Your task to perform on an android device: change notification settings in the gmail app Image 0: 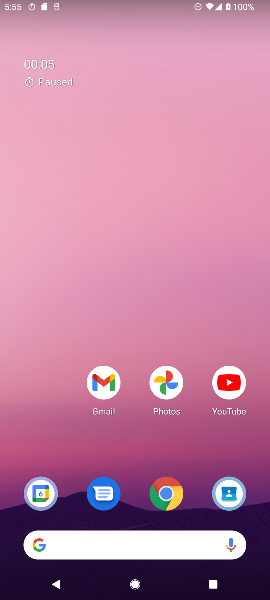
Step 0: drag from (143, 321) to (119, 198)
Your task to perform on an android device: change notification settings in the gmail app Image 1: 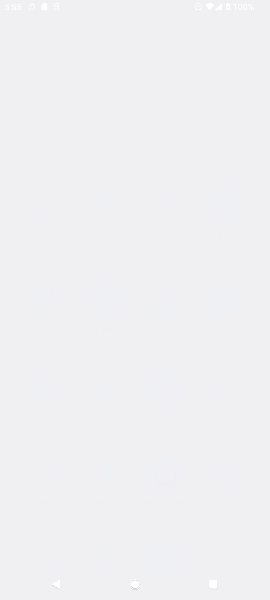
Step 1: drag from (170, 471) to (140, 217)
Your task to perform on an android device: change notification settings in the gmail app Image 2: 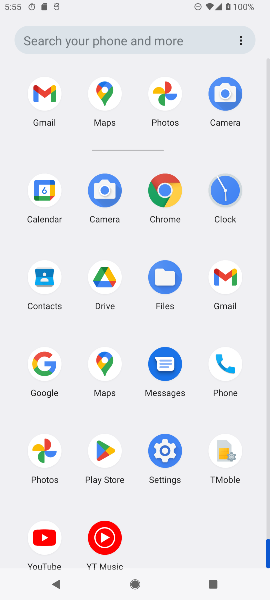
Step 2: drag from (195, 443) to (195, 261)
Your task to perform on an android device: change notification settings in the gmail app Image 3: 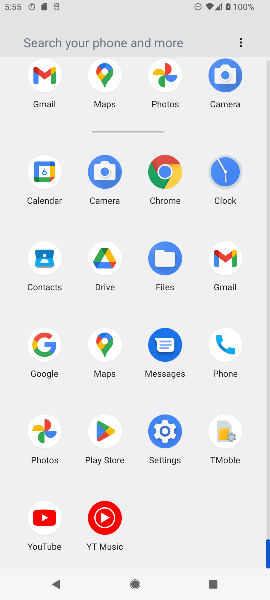
Step 3: click (224, 255)
Your task to perform on an android device: change notification settings in the gmail app Image 4: 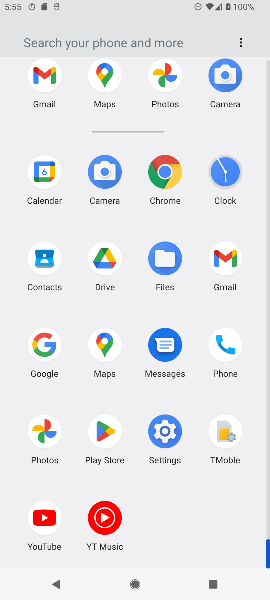
Step 4: click (225, 255)
Your task to perform on an android device: change notification settings in the gmail app Image 5: 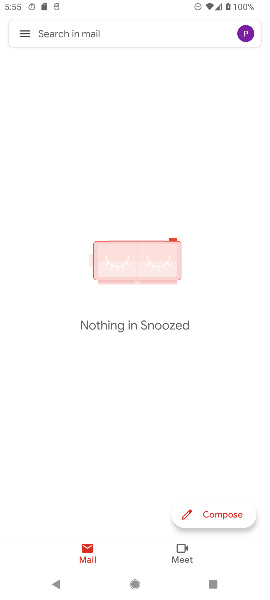
Step 5: press back button
Your task to perform on an android device: change notification settings in the gmail app Image 6: 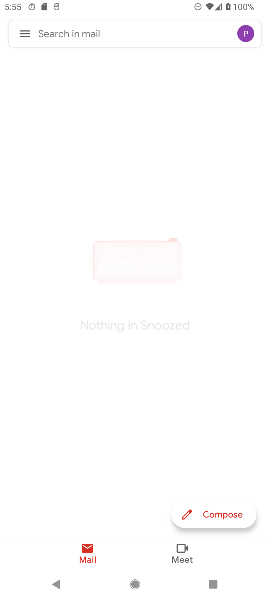
Step 6: press back button
Your task to perform on an android device: change notification settings in the gmail app Image 7: 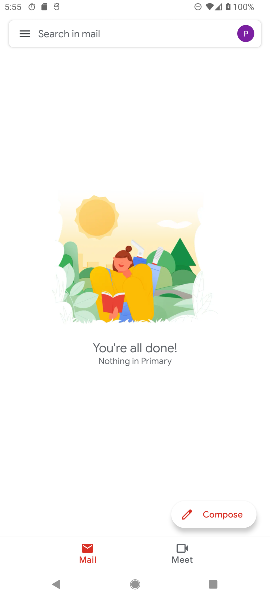
Step 7: press back button
Your task to perform on an android device: change notification settings in the gmail app Image 8: 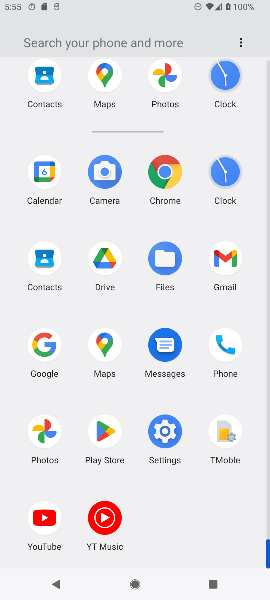
Step 8: press back button
Your task to perform on an android device: change notification settings in the gmail app Image 9: 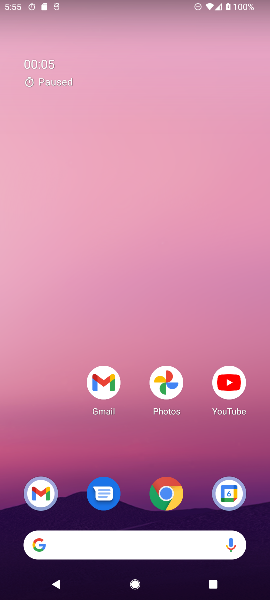
Step 9: drag from (141, 504) to (72, 45)
Your task to perform on an android device: change notification settings in the gmail app Image 10: 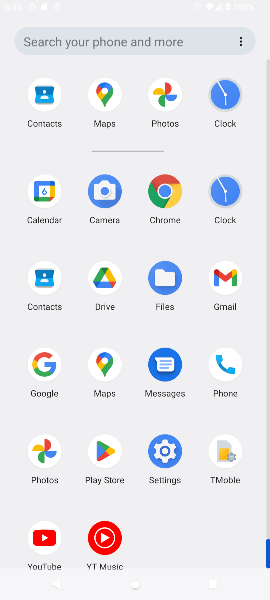
Step 10: drag from (166, 366) to (192, 6)
Your task to perform on an android device: change notification settings in the gmail app Image 11: 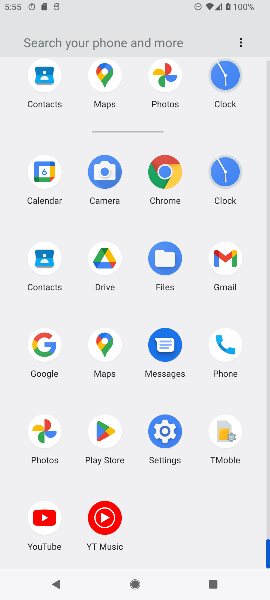
Step 11: click (226, 249)
Your task to perform on an android device: change notification settings in the gmail app Image 12: 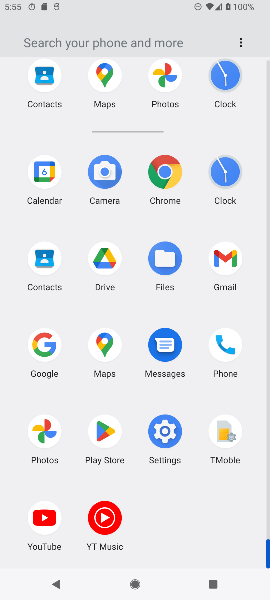
Step 12: click (226, 249)
Your task to perform on an android device: change notification settings in the gmail app Image 13: 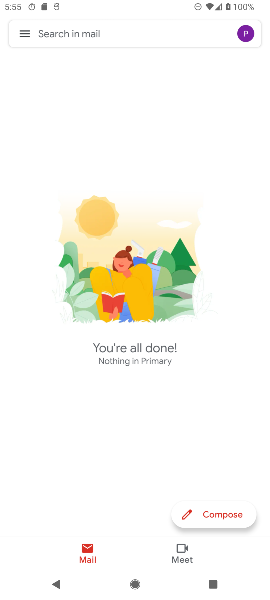
Step 13: click (227, 250)
Your task to perform on an android device: change notification settings in the gmail app Image 14: 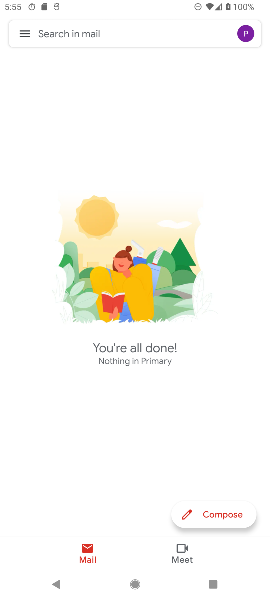
Step 14: click (14, 35)
Your task to perform on an android device: change notification settings in the gmail app Image 15: 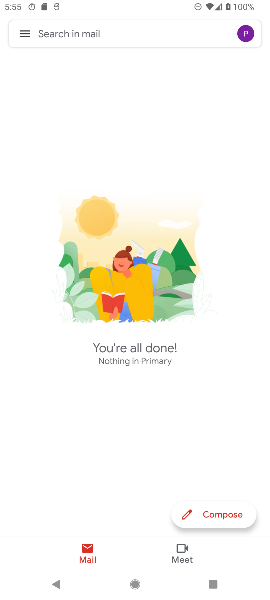
Step 15: click (14, 35)
Your task to perform on an android device: change notification settings in the gmail app Image 16: 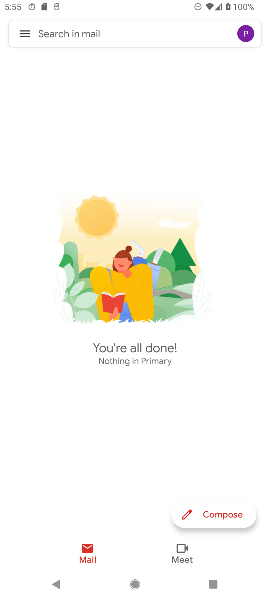
Step 16: click (29, 34)
Your task to perform on an android device: change notification settings in the gmail app Image 17: 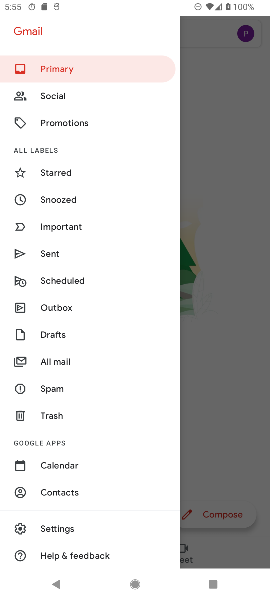
Step 17: click (53, 528)
Your task to perform on an android device: change notification settings in the gmail app Image 18: 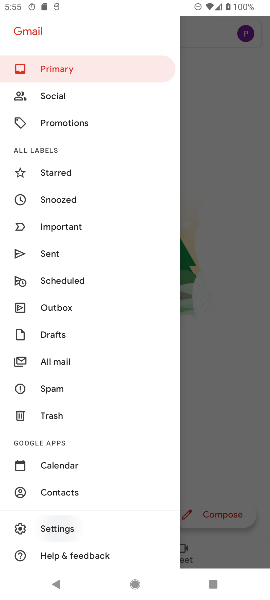
Step 18: click (52, 528)
Your task to perform on an android device: change notification settings in the gmail app Image 19: 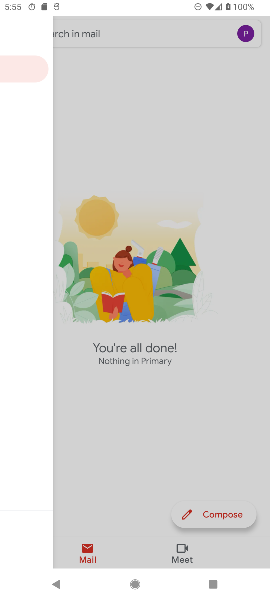
Step 19: click (51, 528)
Your task to perform on an android device: change notification settings in the gmail app Image 20: 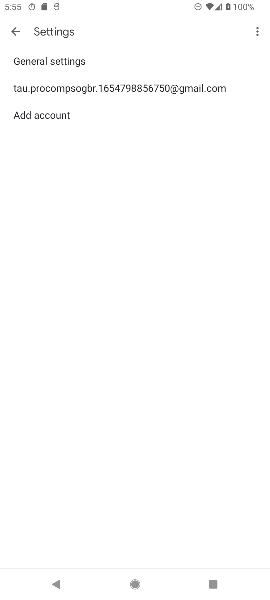
Step 20: click (69, 95)
Your task to perform on an android device: change notification settings in the gmail app Image 21: 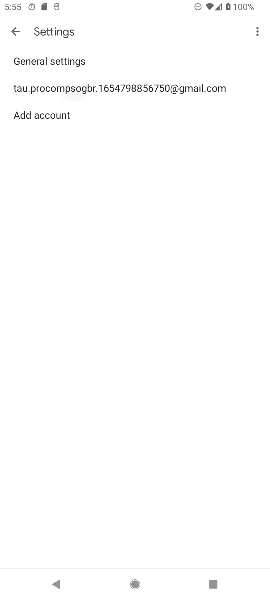
Step 21: click (70, 94)
Your task to perform on an android device: change notification settings in the gmail app Image 22: 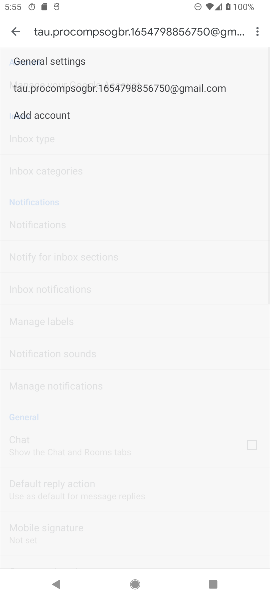
Step 22: click (72, 94)
Your task to perform on an android device: change notification settings in the gmail app Image 23: 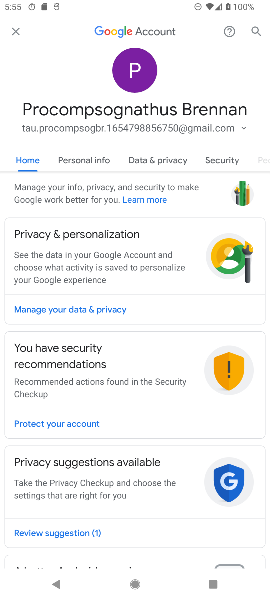
Step 23: click (13, 26)
Your task to perform on an android device: change notification settings in the gmail app Image 24: 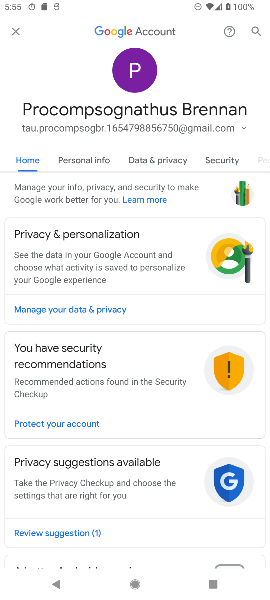
Step 24: click (20, 33)
Your task to perform on an android device: change notification settings in the gmail app Image 25: 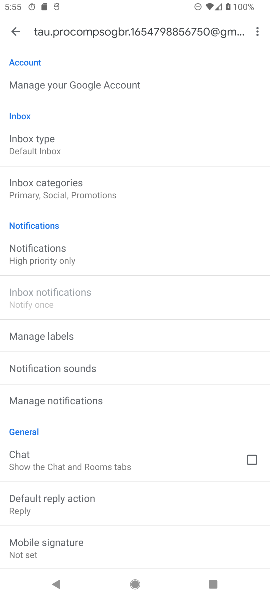
Step 25: click (34, 256)
Your task to perform on an android device: change notification settings in the gmail app Image 26: 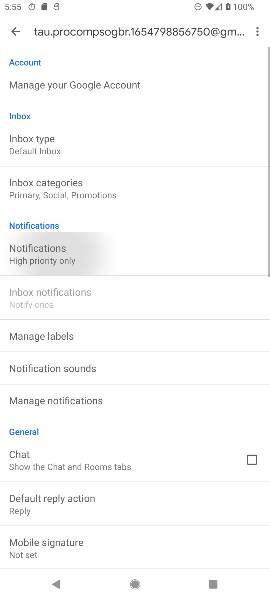
Step 26: click (34, 256)
Your task to perform on an android device: change notification settings in the gmail app Image 27: 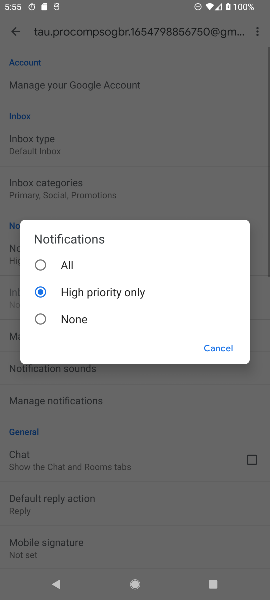
Step 27: click (39, 265)
Your task to perform on an android device: change notification settings in the gmail app Image 28: 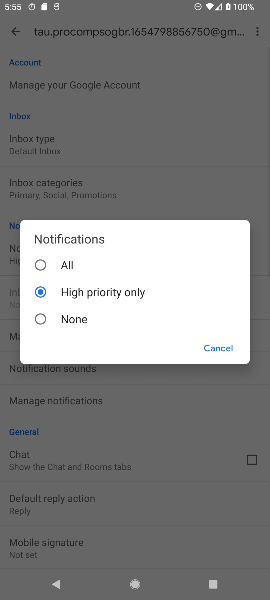
Step 28: click (39, 265)
Your task to perform on an android device: change notification settings in the gmail app Image 29: 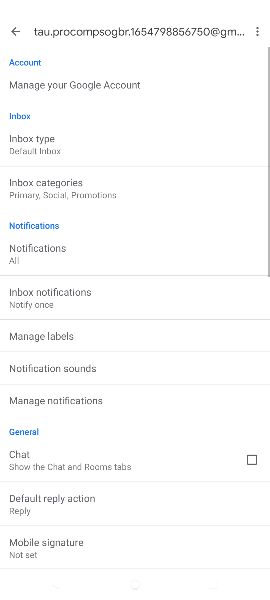
Step 29: click (39, 265)
Your task to perform on an android device: change notification settings in the gmail app Image 30: 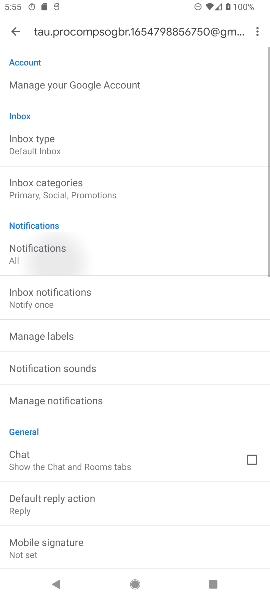
Step 30: click (40, 265)
Your task to perform on an android device: change notification settings in the gmail app Image 31: 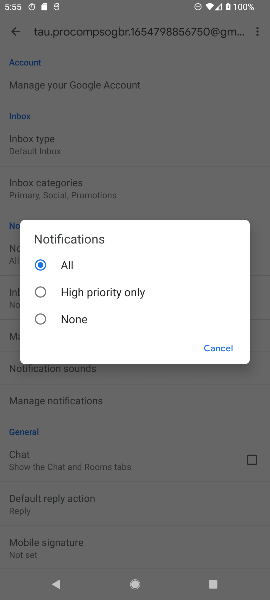
Step 31: click (213, 347)
Your task to perform on an android device: change notification settings in the gmail app Image 32: 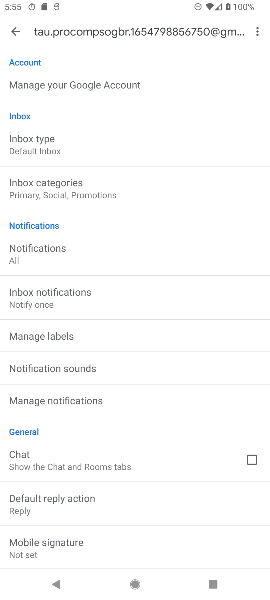
Step 32: task complete